Your task to perform on an android device: What's the weather going to be tomorrow? Image 0: 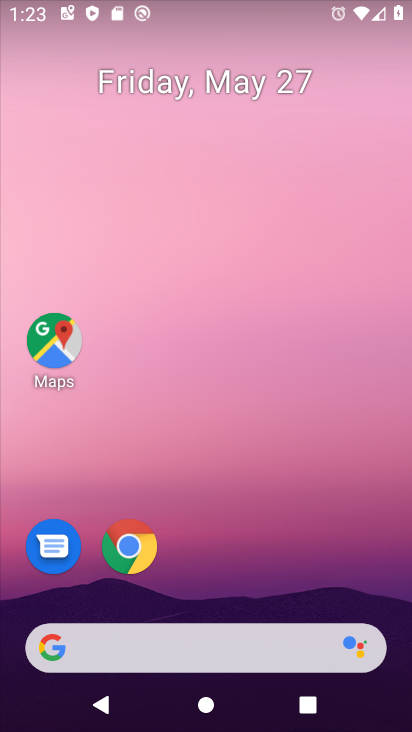
Step 0: press home button
Your task to perform on an android device: What's the weather going to be tomorrow? Image 1: 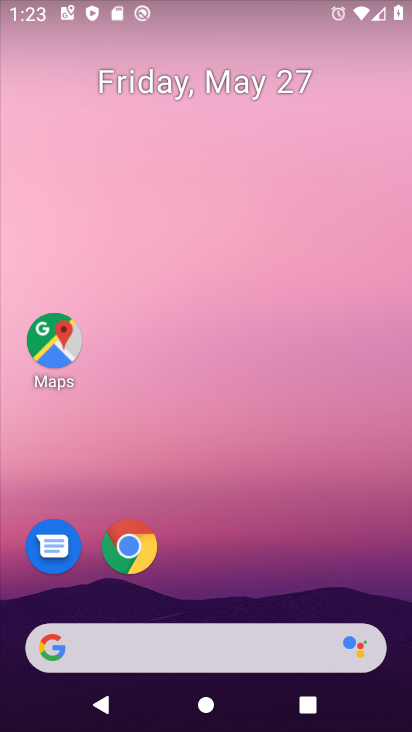
Step 1: drag from (265, 557) to (315, 66)
Your task to perform on an android device: What's the weather going to be tomorrow? Image 2: 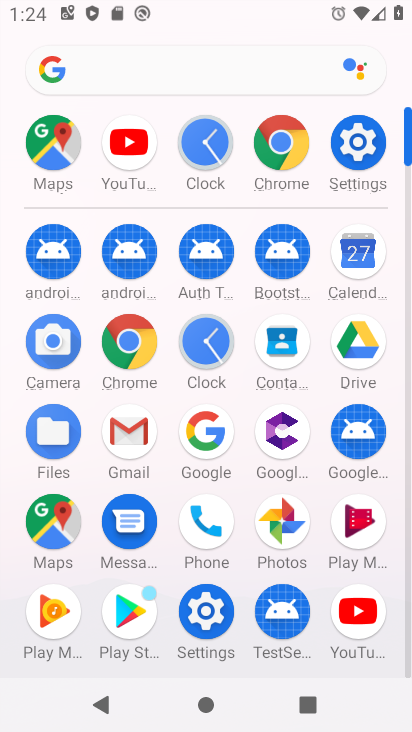
Step 2: click (167, 75)
Your task to perform on an android device: What's the weather going to be tomorrow? Image 3: 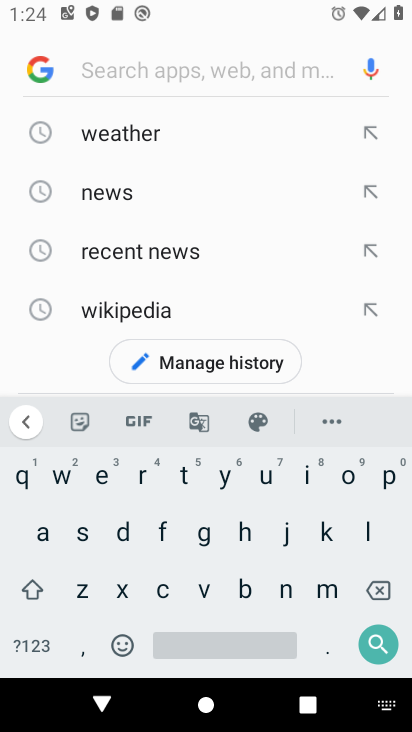
Step 3: click (138, 138)
Your task to perform on an android device: What's the weather going to be tomorrow? Image 4: 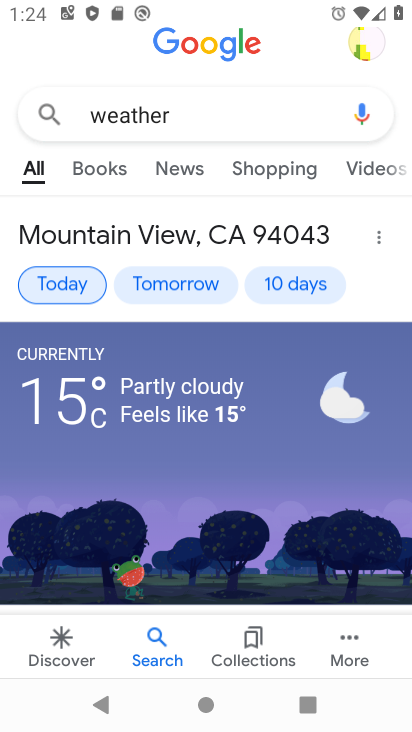
Step 4: task complete